Your task to perform on an android device: Open privacy settings Image 0: 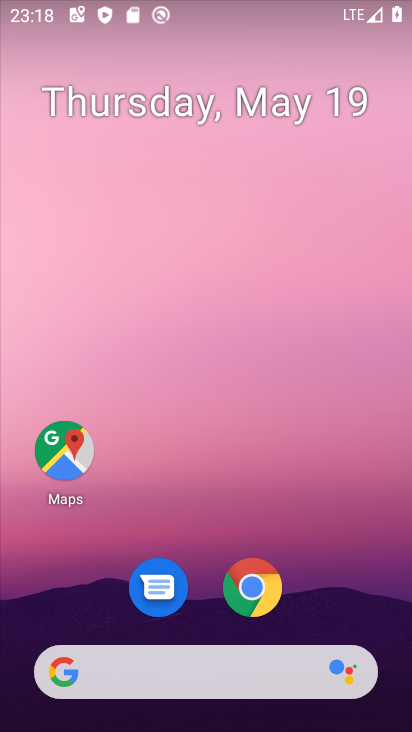
Step 0: drag from (252, 661) to (269, 209)
Your task to perform on an android device: Open privacy settings Image 1: 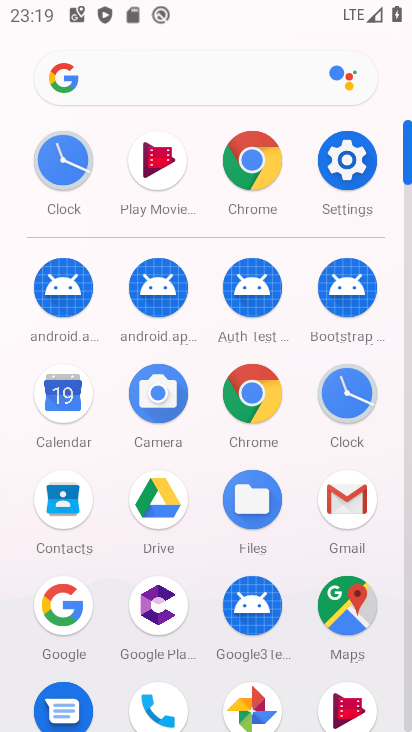
Step 1: click (331, 168)
Your task to perform on an android device: Open privacy settings Image 2: 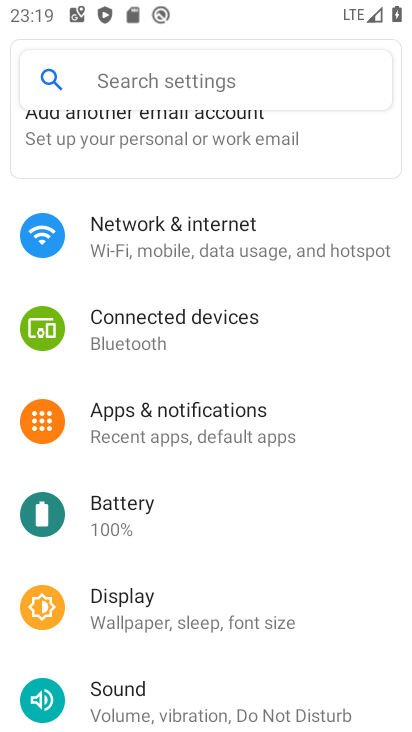
Step 2: drag from (186, 567) to (171, 201)
Your task to perform on an android device: Open privacy settings Image 3: 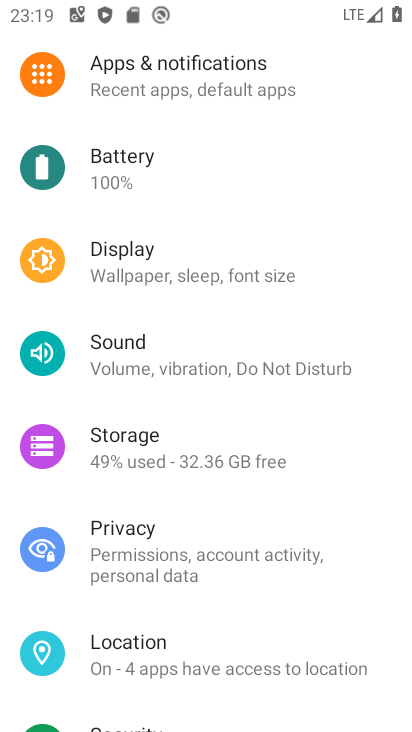
Step 3: click (149, 555)
Your task to perform on an android device: Open privacy settings Image 4: 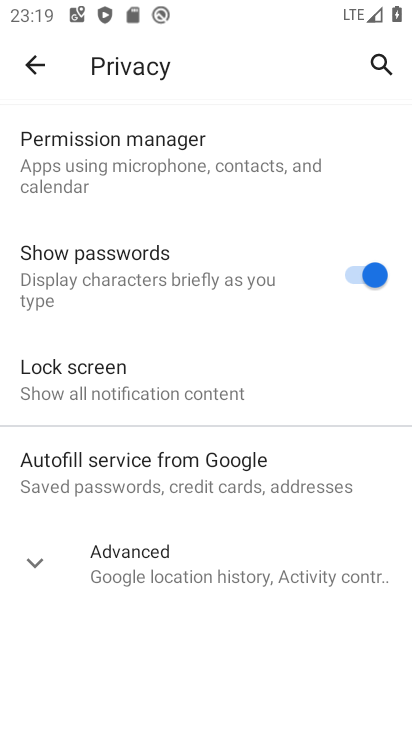
Step 4: task complete